Your task to perform on an android device: Open the calendar and show me this week's events? Image 0: 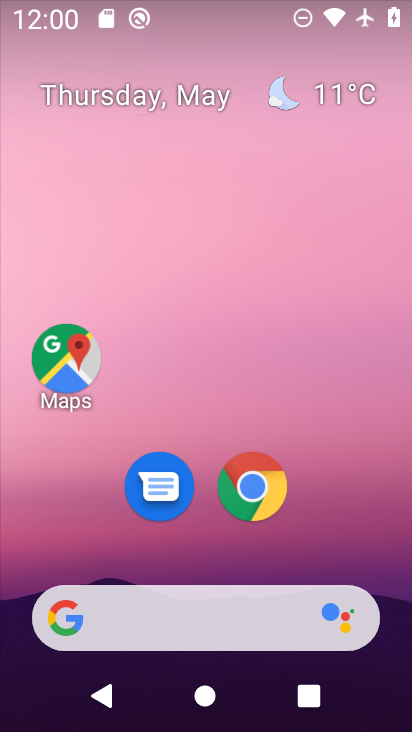
Step 0: drag from (372, 522) to (262, 7)
Your task to perform on an android device: Open the calendar and show me this week's events? Image 1: 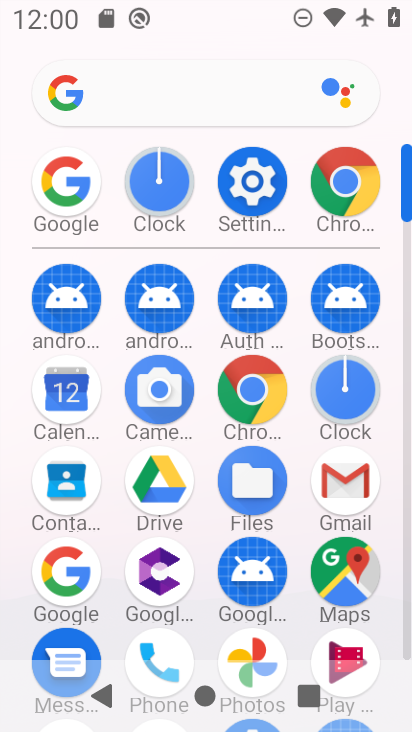
Step 1: drag from (1, 614) to (4, 362)
Your task to perform on an android device: Open the calendar and show me this week's events? Image 2: 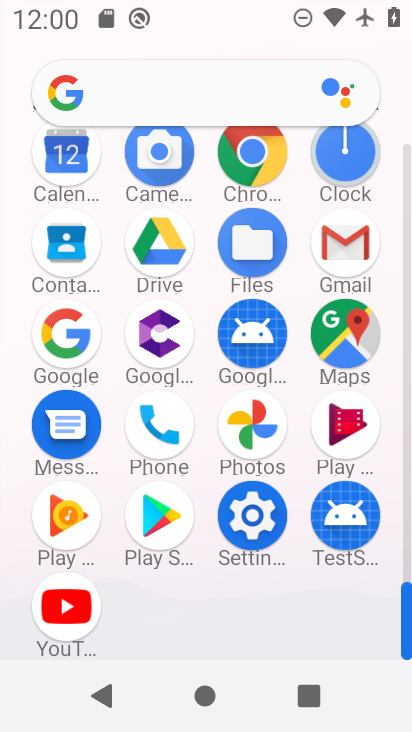
Step 2: click (64, 152)
Your task to perform on an android device: Open the calendar and show me this week's events? Image 3: 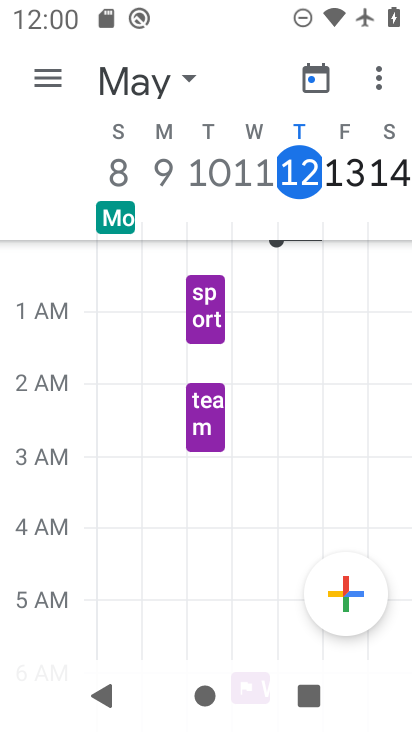
Step 3: task complete